Your task to perform on an android device: see creations saved in the google photos Image 0: 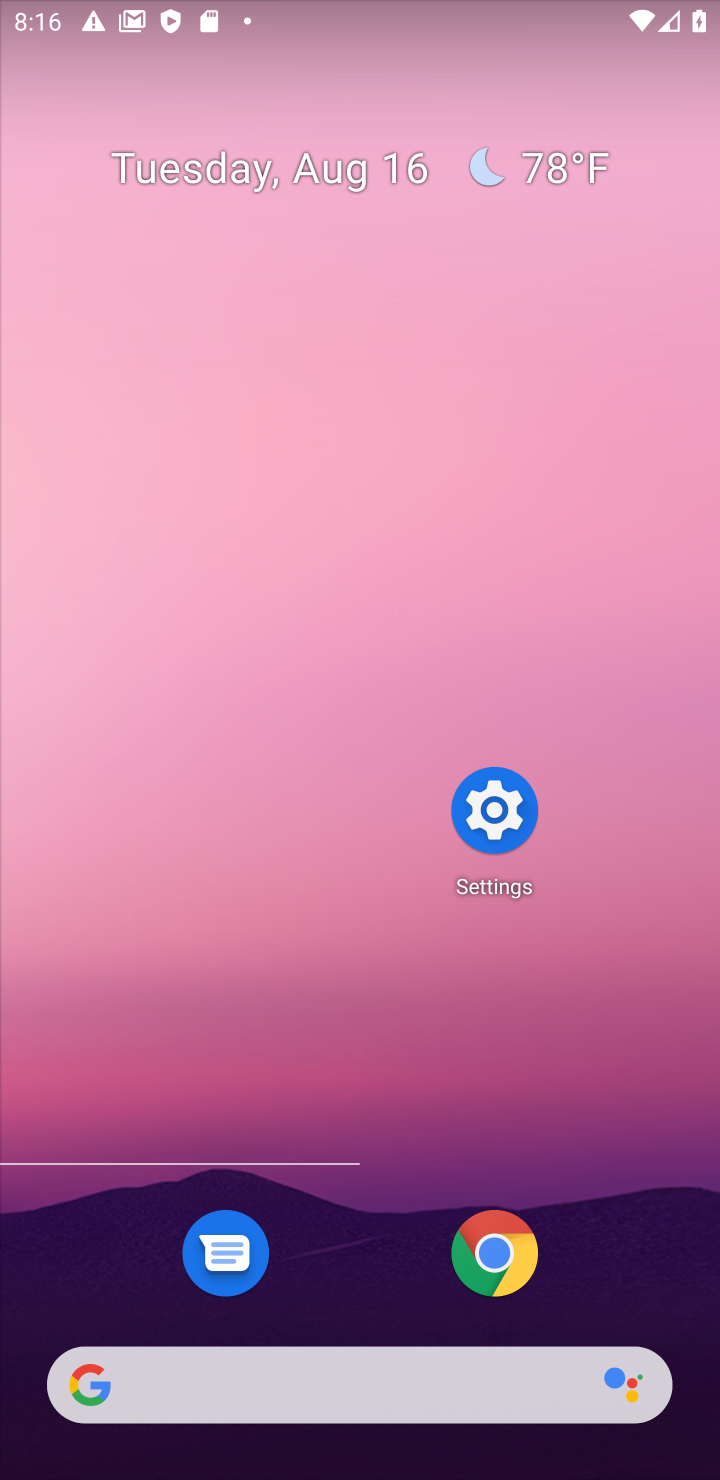
Step 0: drag from (341, 1206) to (530, 207)
Your task to perform on an android device: see creations saved in the google photos Image 1: 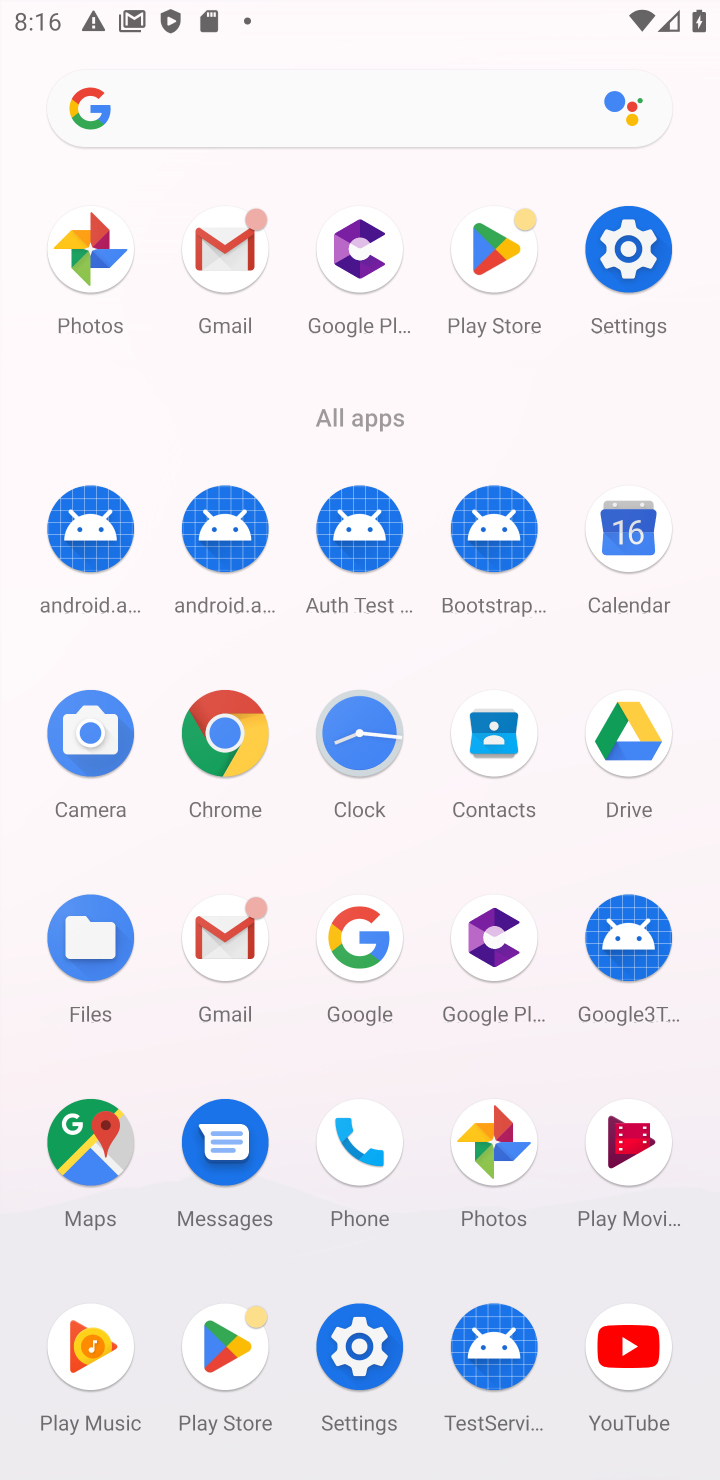
Step 1: click (492, 1154)
Your task to perform on an android device: see creations saved in the google photos Image 2: 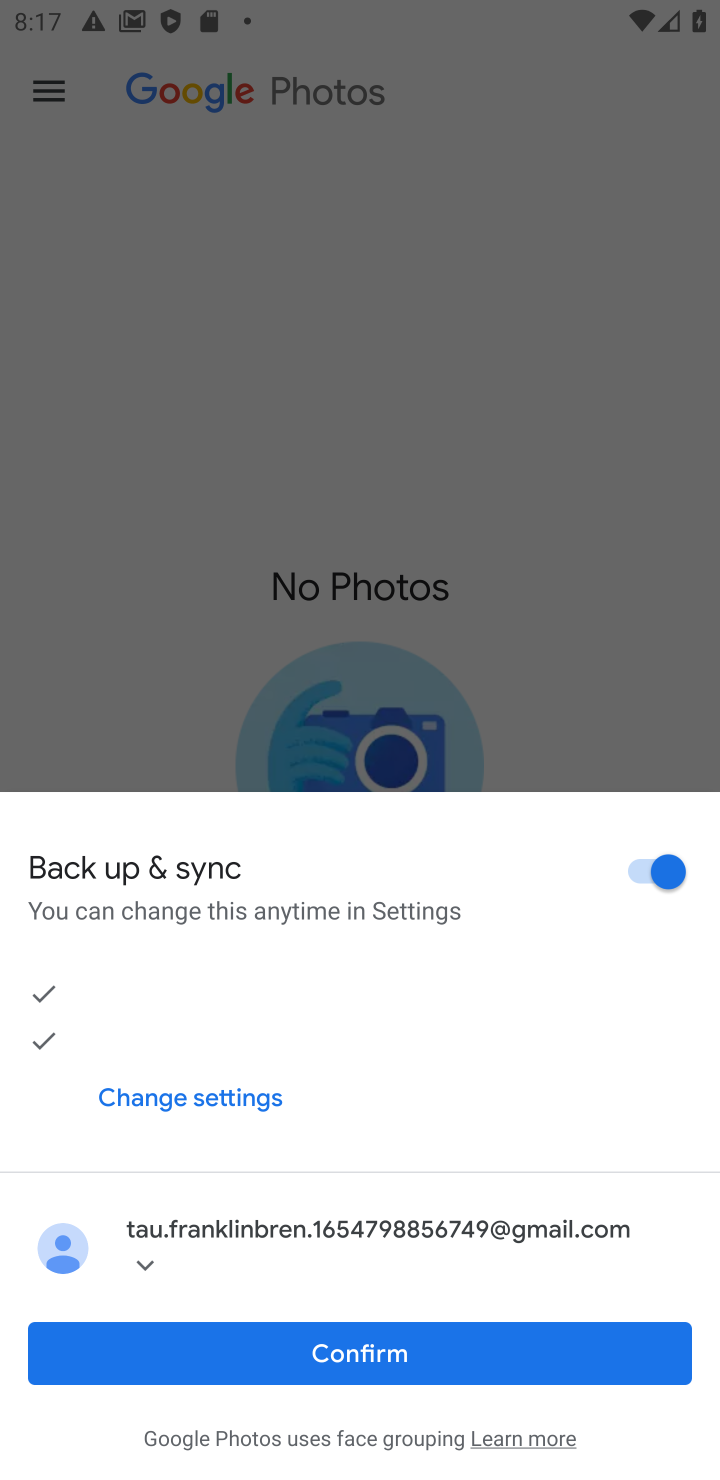
Step 2: click (352, 1362)
Your task to perform on an android device: see creations saved in the google photos Image 3: 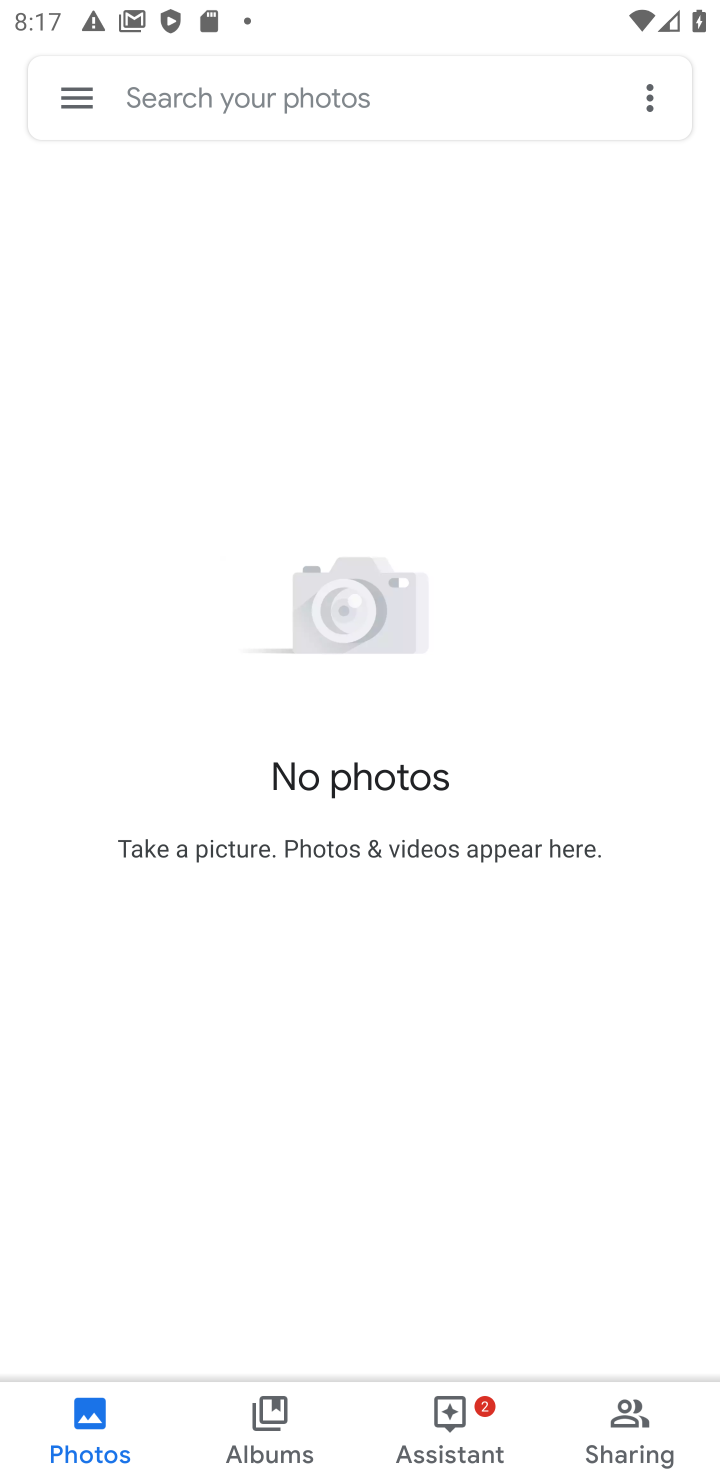
Step 3: click (264, 1441)
Your task to perform on an android device: see creations saved in the google photos Image 4: 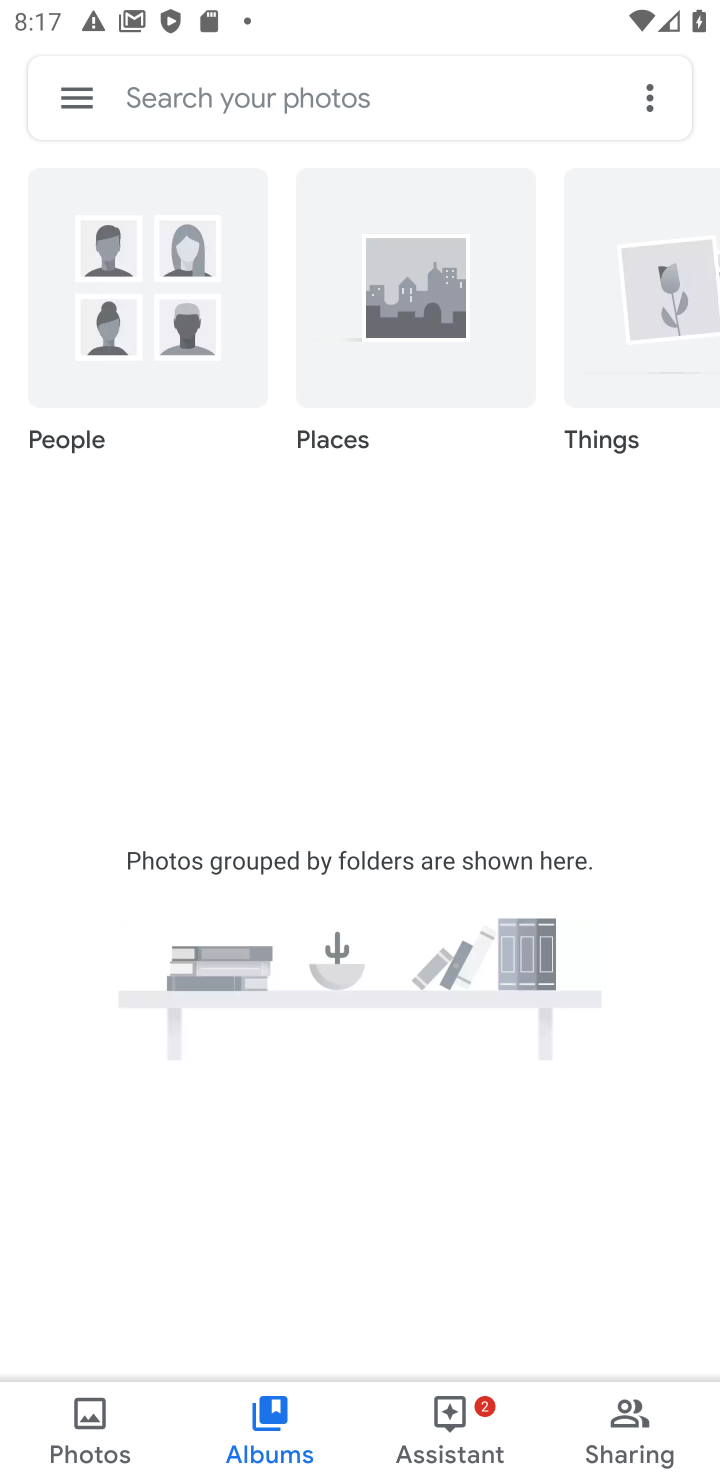
Step 4: click (296, 82)
Your task to perform on an android device: see creations saved in the google photos Image 5: 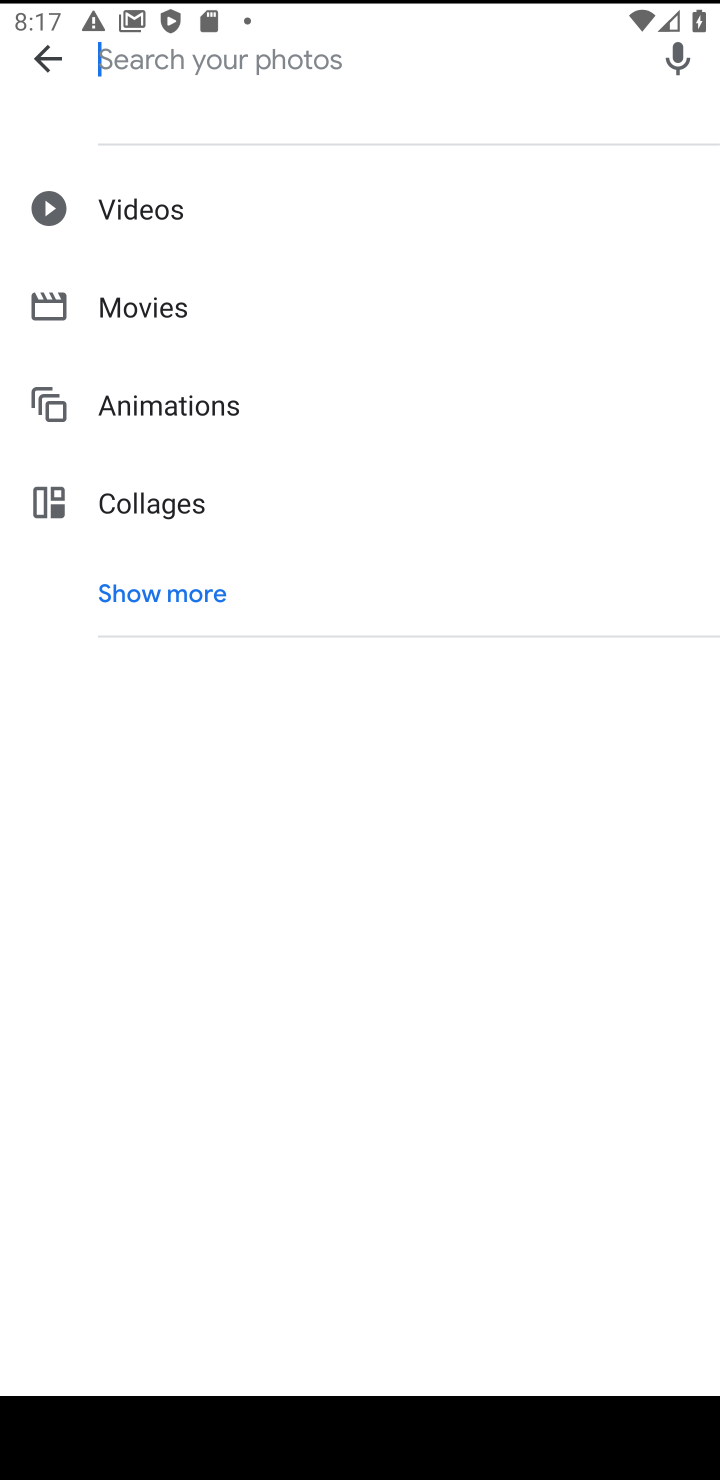
Step 5: click (177, 590)
Your task to perform on an android device: see creations saved in the google photos Image 6: 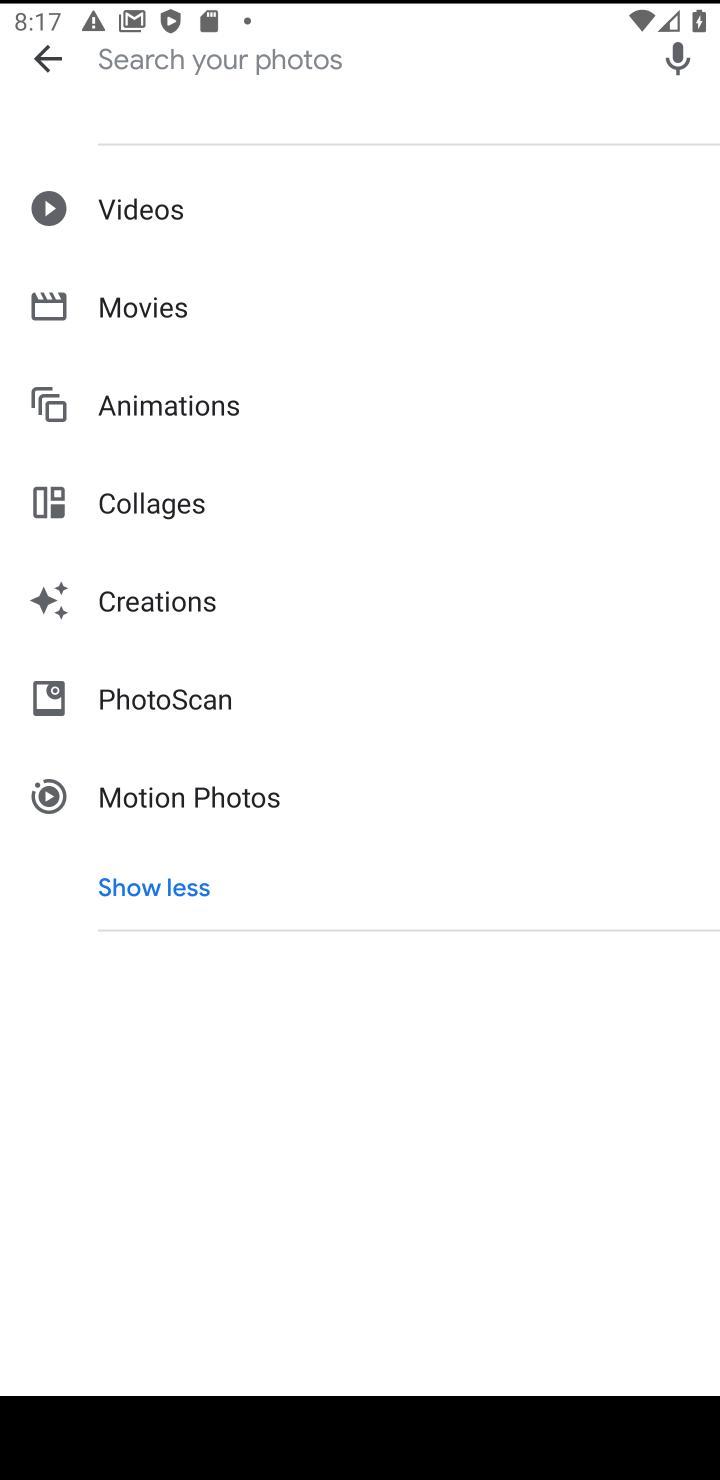
Step 6: click (166, 602)
Your task to perform on an android device: see creations saved in the google photos Image 7: 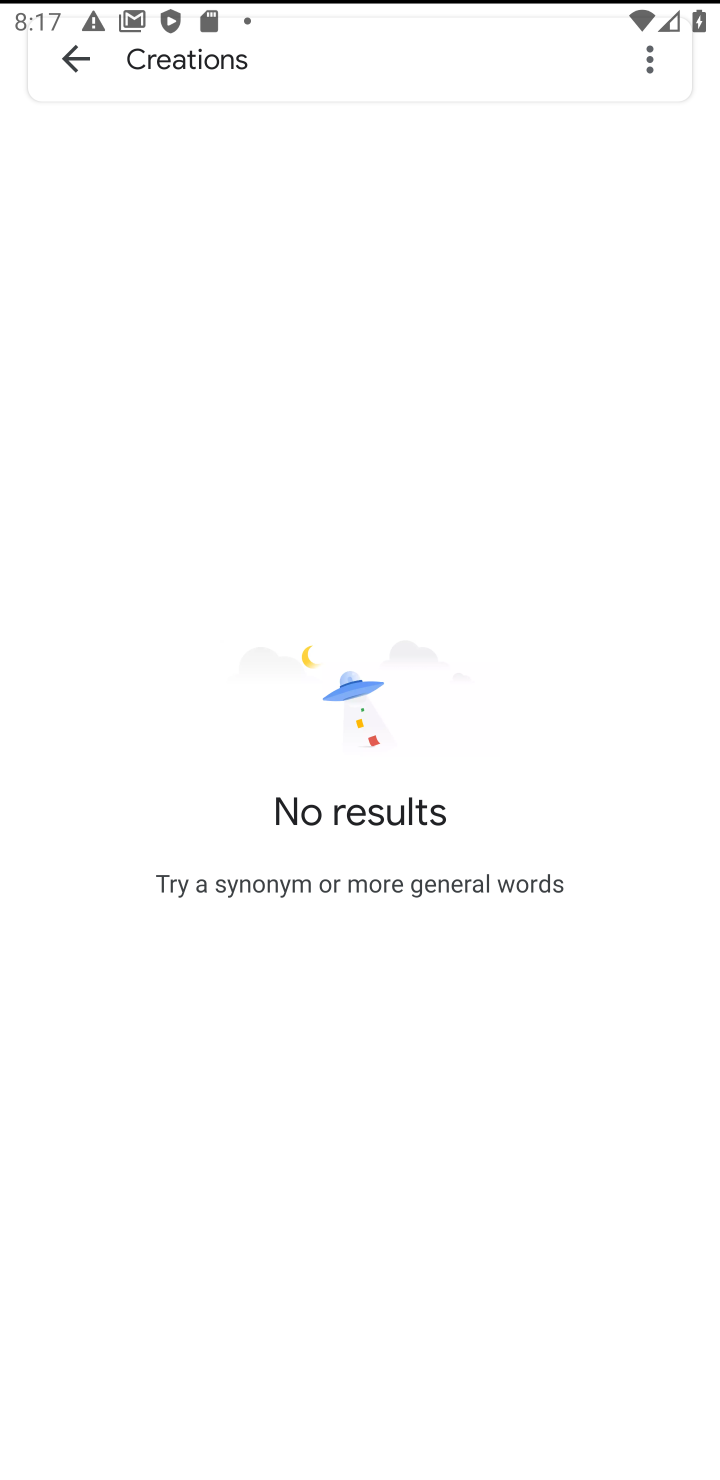
Step 7: task complete